Your task to perform on an android device: What is the news today? Image 0: 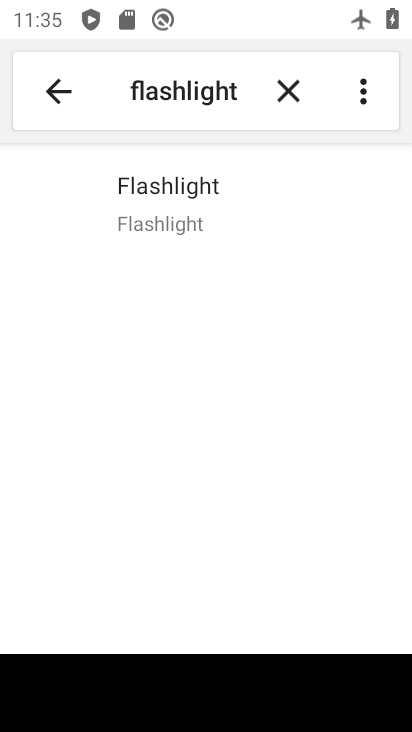
Step 0: press home button
Your task to perform on an android device: What is the news today? Image 1: 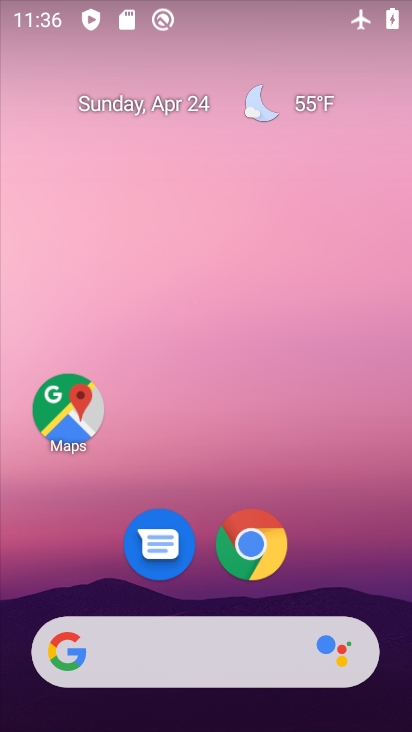
Step 1: click (236, 534)
Your task to perform on an android device: What is the news today? Image 2: 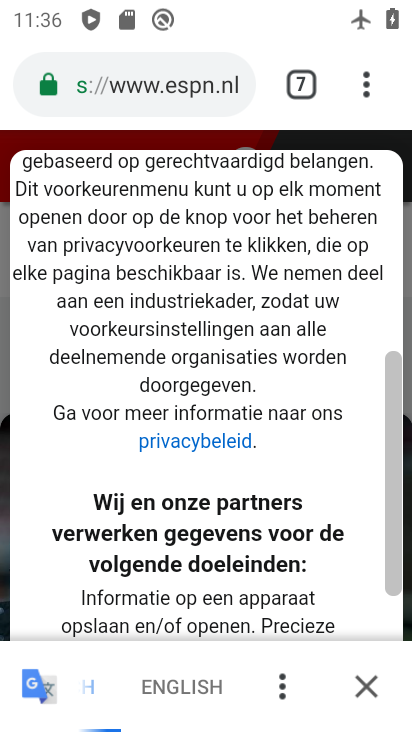
Step 2: click (306, 91)
Your task to perform on an android device: What is the news today? Image 3: 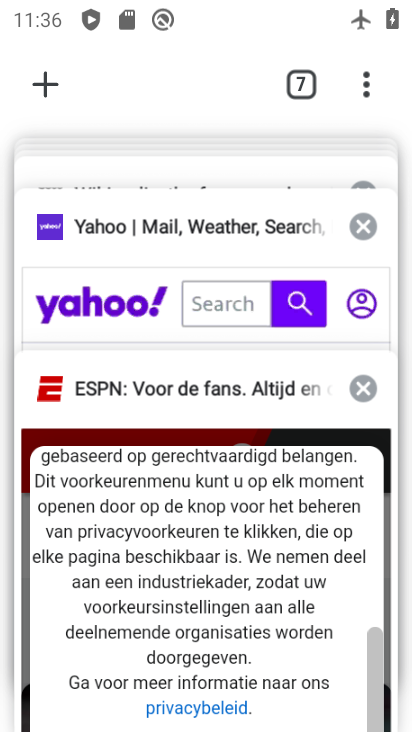
Step 3: click (43, 93)
Your task to perform on an android device: What is the news today? Image 4: 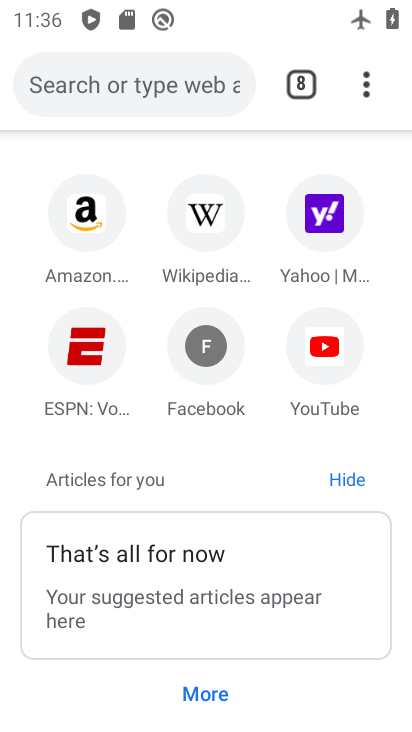
Step 4: click (145, 78)
Your task to perform on an android device: What is the news today? Image 5: 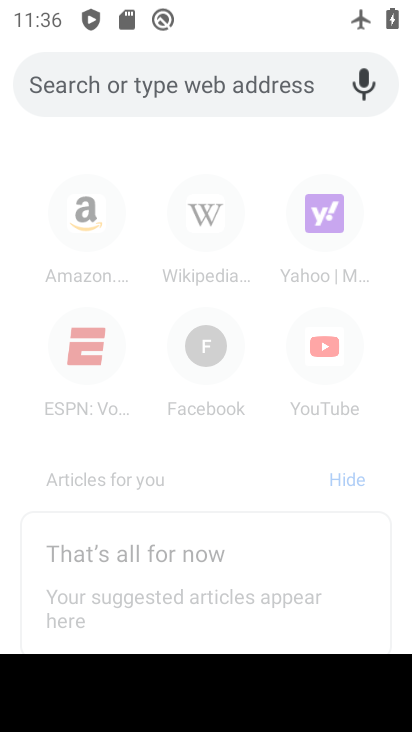
Step 5: type "what is the news today"
Your task to perform on an android device: What is the news today? Image 6: 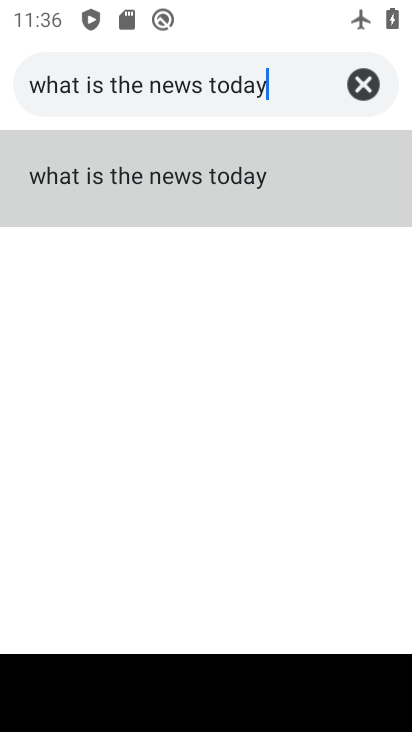
Step 6: click (134, 173)
Your task to perform on an android device: What is the news today? Image 7: 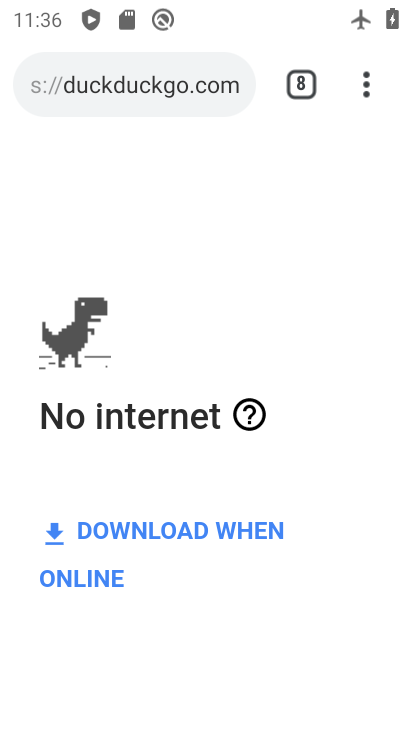
Step 7: task complete